Your task to perform on an android device: Go to Google maps Image 0: 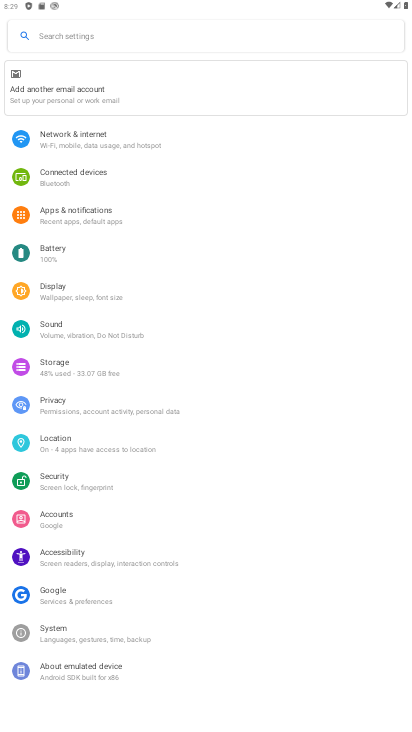
Step 0: press home button
Your task to perform on an android device: Go to Google maps Image 1: 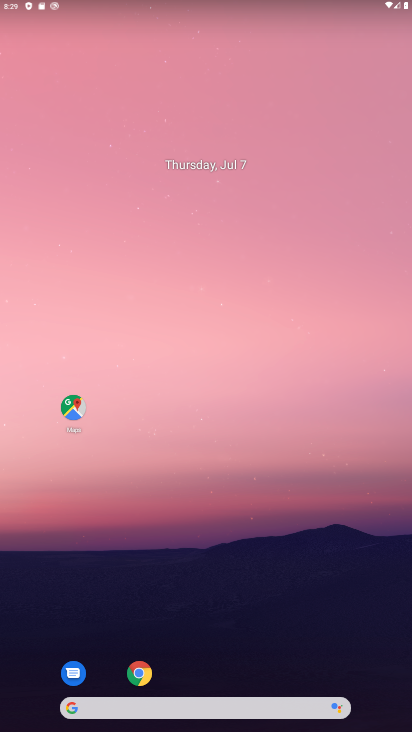
Step 1: drag from (199, 668) to (311, 171)
Your task to perform on an android device: Go to Google maps Image 2: 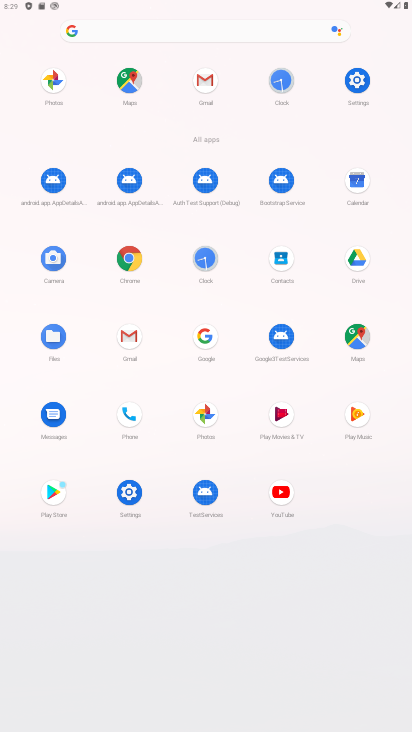
Step 2: click (361, 337)
Your task to perform on an android device: Go to Google maps Image 3: 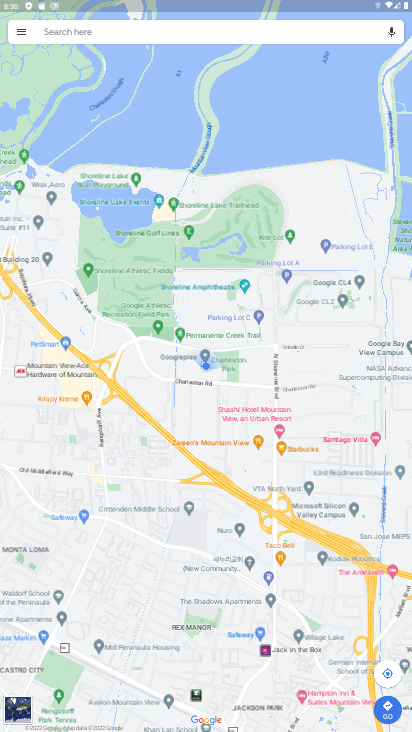
Step 3: task complete